Your task to perform on an android device: Find coffee shops on Maps Image 0: 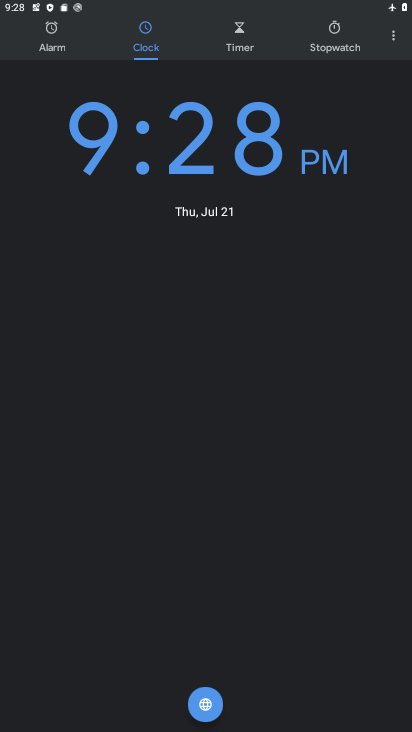
Step 0: press home button
Your task to perform on an android device: Find coffee shops on Maps Image 1: 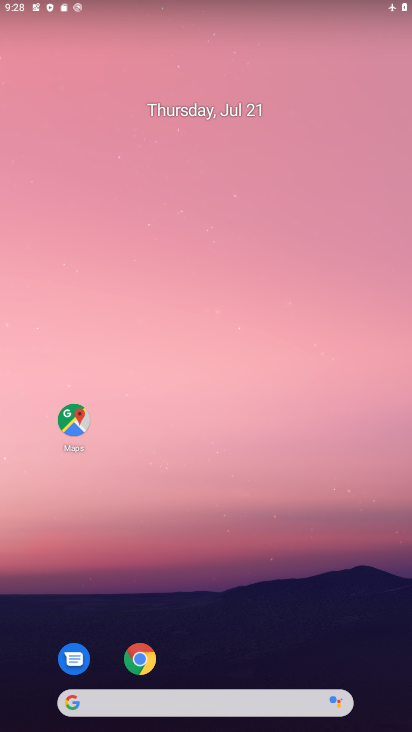
Step 1: drag from (231, 677) to (204, 29)
Your task to perform on an android device: Find coffee shops on Maps Image 2: 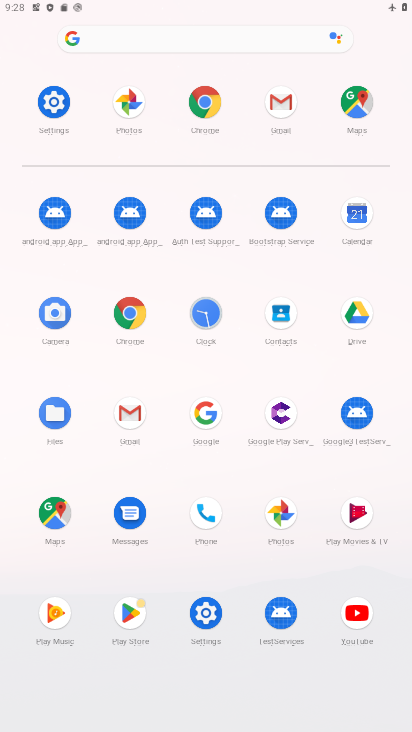
Step 2: click (56, 517)
Your task to perform on an android device: Find coffee shops on Maps Image 3: 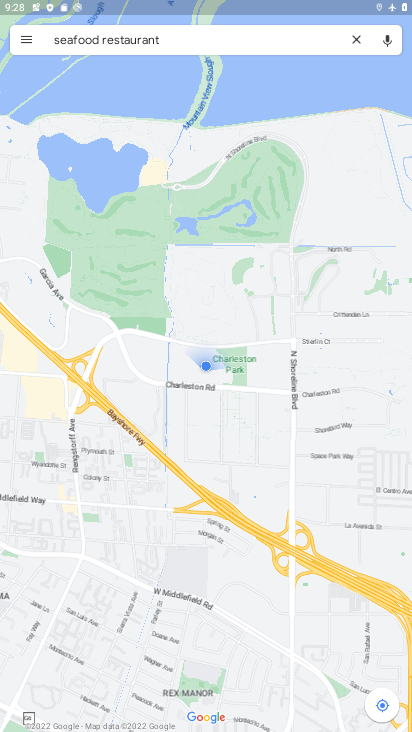
Step 3: click (354, 37)
Your task to perform on an android device: Find coffee shops on Maps Image 4: 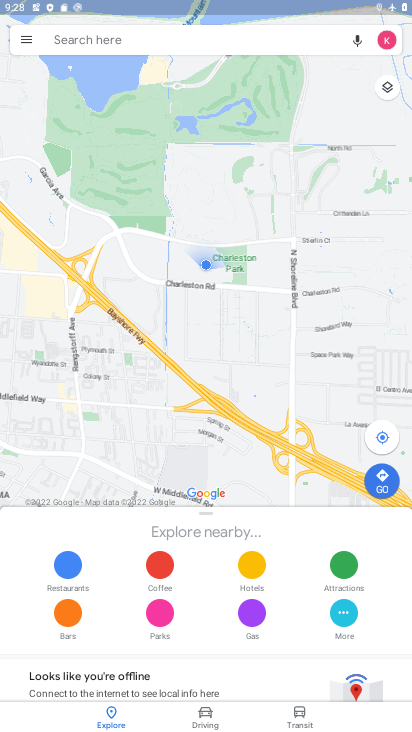
Step 4: click (229, 46)
Your task to perform on an android device: Find coffee shops on Maps Image 5: 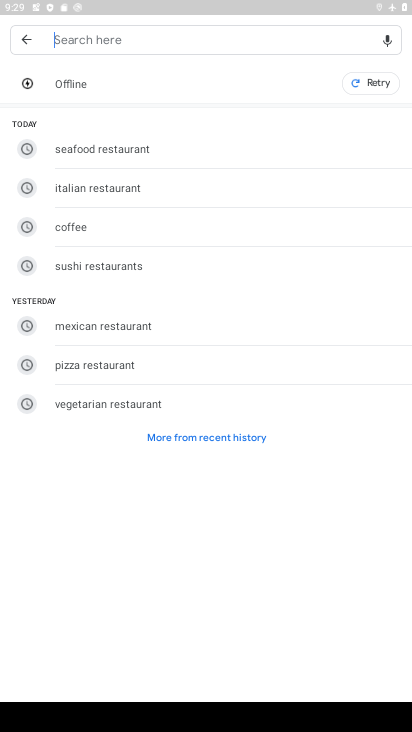
Step 5: click (59, 235)
Your task to perform on an android device: Find coffee shops on Maps Image 6: 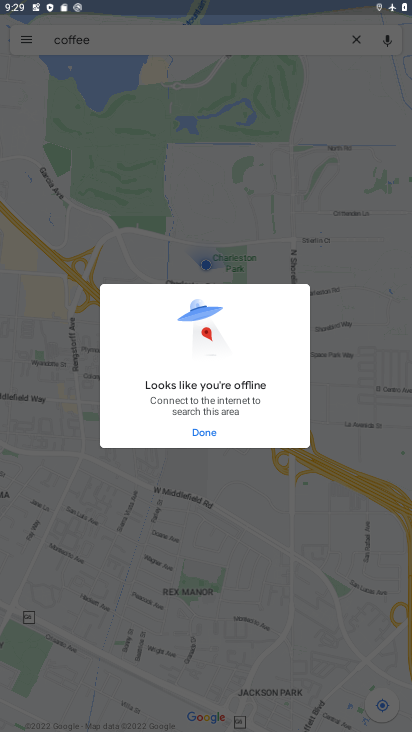
Step 6: task complete